Your task to perform on an android device: Search for vegetarian restaurants on Maps Image 0: 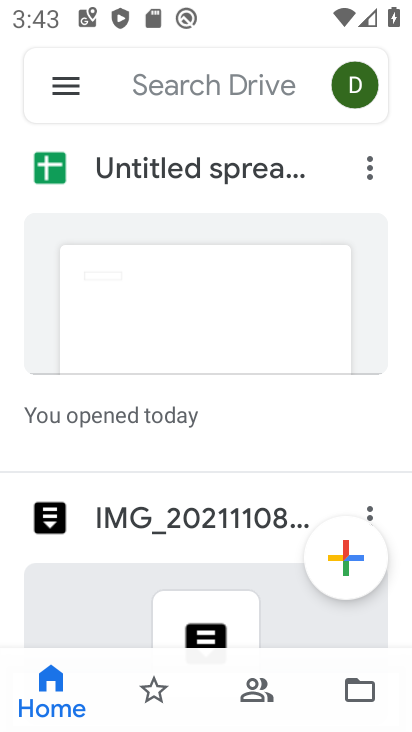
Step 0: press home button
Your task to perform on an android device: Search for vegetarian restaurants on Maps Image 1: 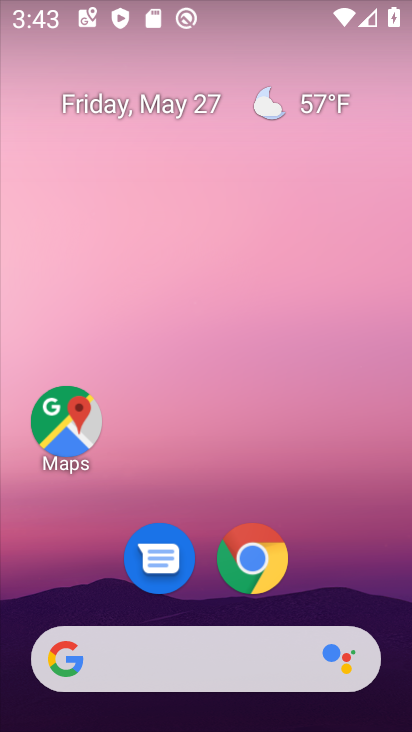
Step 1: click (58, 452)
Your task to perform on an android device: Search for vegetarian restaurants on Maps Image 2: 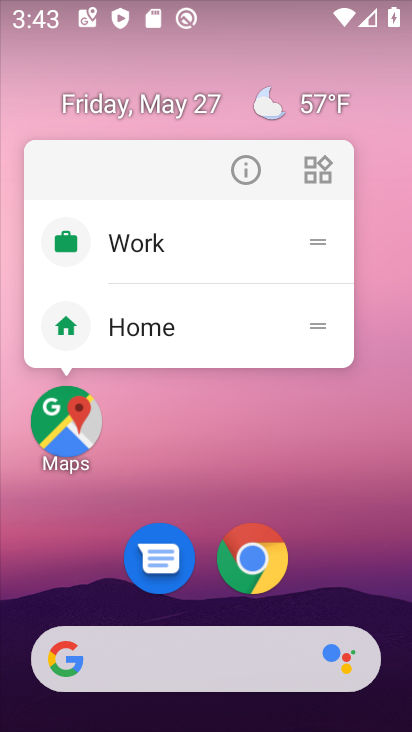
Step 2: click (59, 446)
Your task to perform on an android device: Search for vegetarian restaurants on Maps Image 3: 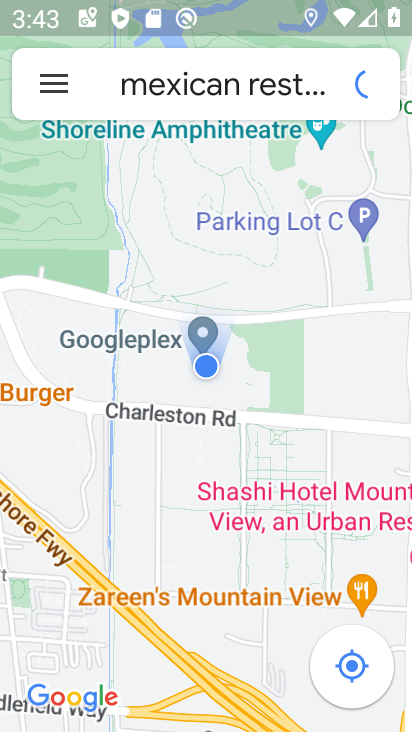
Step 3: click (294, 87)
Your task to perform on an android device: Search for vegetarian restaurants on Maps Image 4: 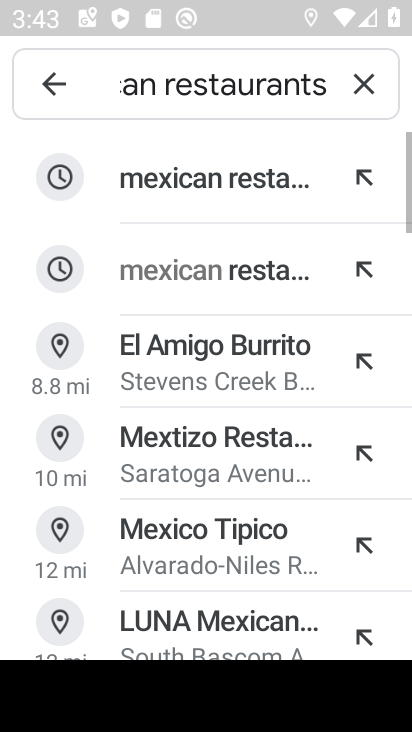
Step 4: click (352, 86)
Your task to perform on an android device: Search for vegetarian restaurants on Maps Image 5: 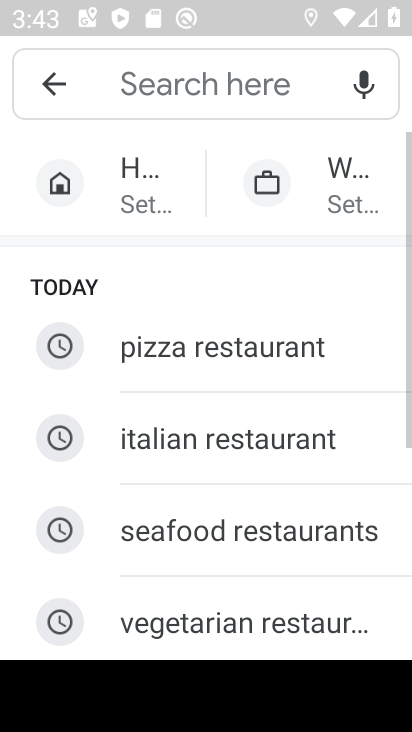
Step 5: click (252, 86)
Your task to perform on an android device: Search for vegetarian restaurants on Maps Image 6: 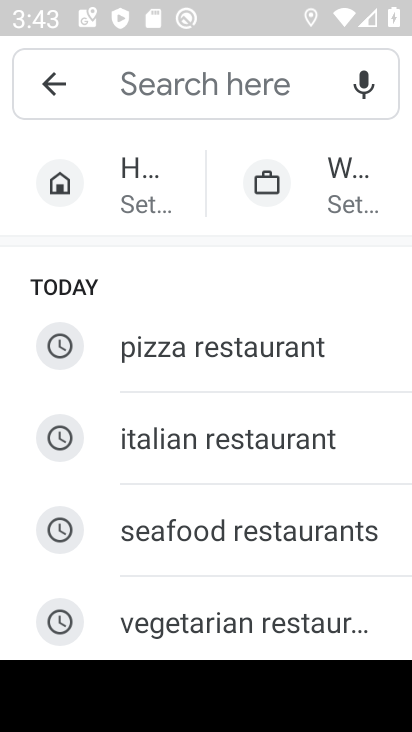
Step 6: type "vegetarian"
Your task to perform on an android device: Search for vegetarian restaurants on Maps Image 7: 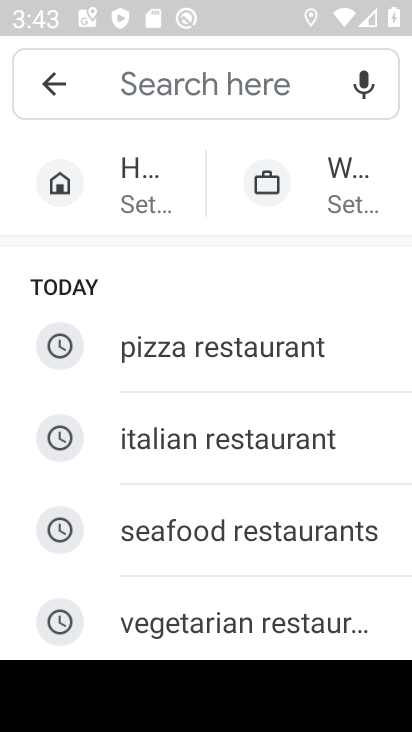
Step 7: click (229, 638)
Your task to perform on an android device: Search for vegetarian restaurants on Maps Image 8: 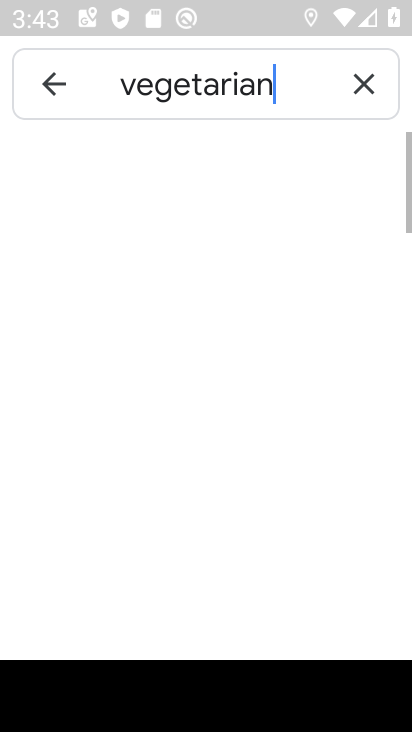
Step 8: task complete